Your task to perform on an android device: empty trash in the gmail app Image 0: 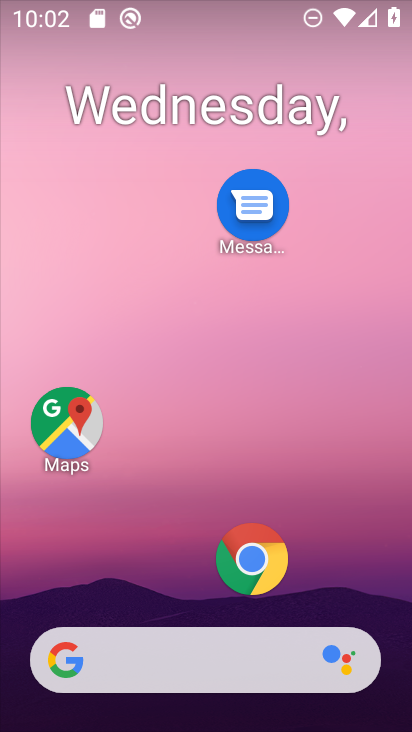
Step 0: drag from (224, 581) to (197, 173)
Your task to perform on an android device: empty trash in the gmail app Image 1: 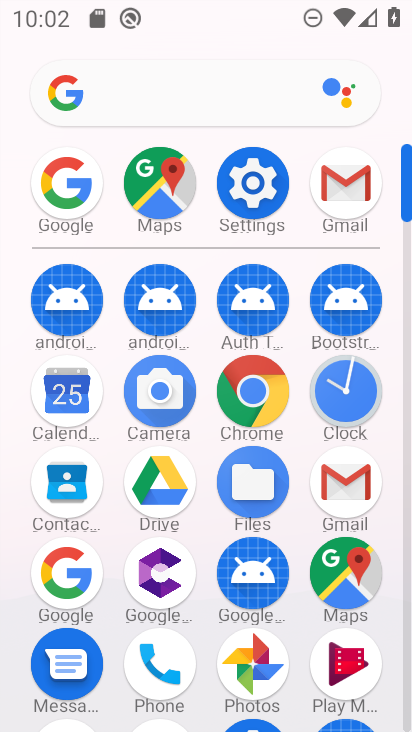
Step 1: click (371, 481)
Your task to perform on an android device: empty trash in the gmail app Image 2: 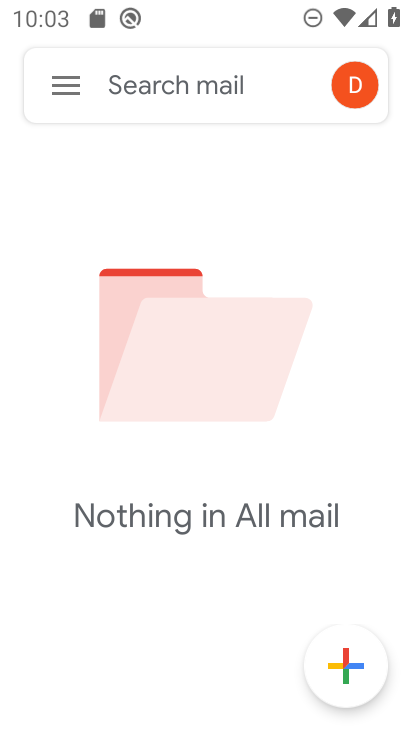
Step 2: click (69, 90)
Your task to perform on an android device: empty trash in the gmail app Image 3: 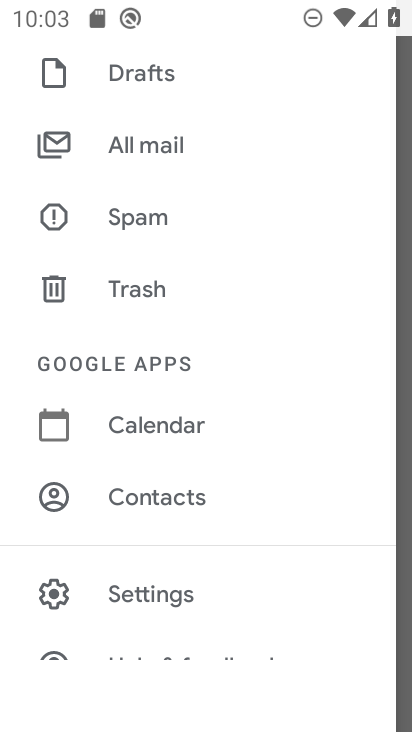
Step 3: click (163, 286)
Your task to perform on an android device: empty trash in the gmail app Image 4: 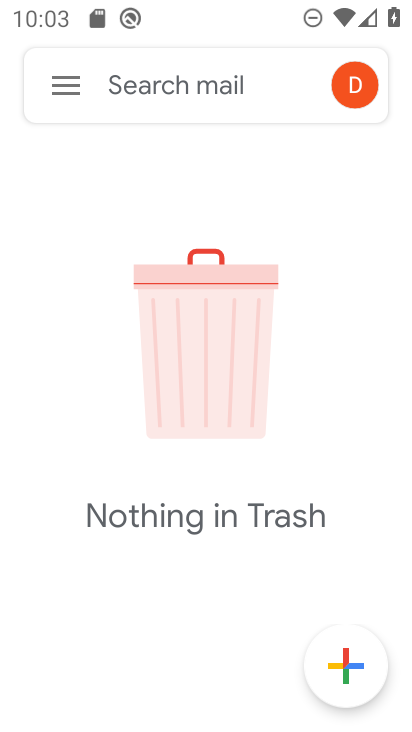
Step 4: task complete